Your task to perform on an android device: Go to internet settings Image 0: 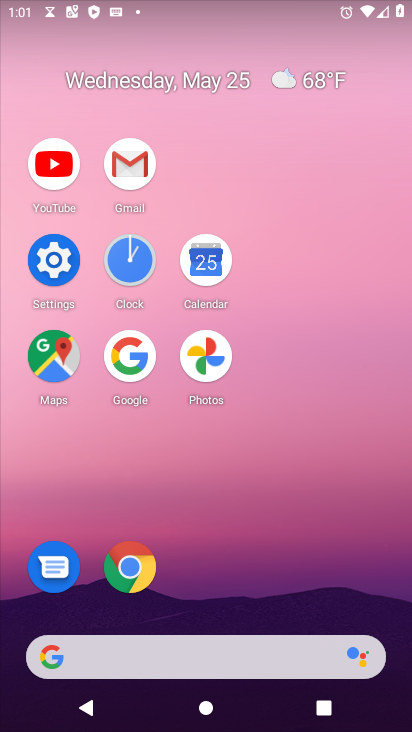
Step 0: click (41, 251)
Your task to perform on an android device: Go to internet settings Image 1: 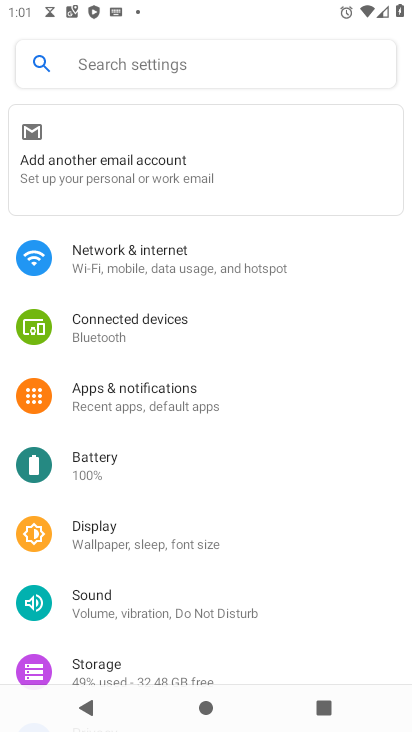
Step 1: click (187, 253)
Your task to perform on an android device: Go to internet settings Image 2: 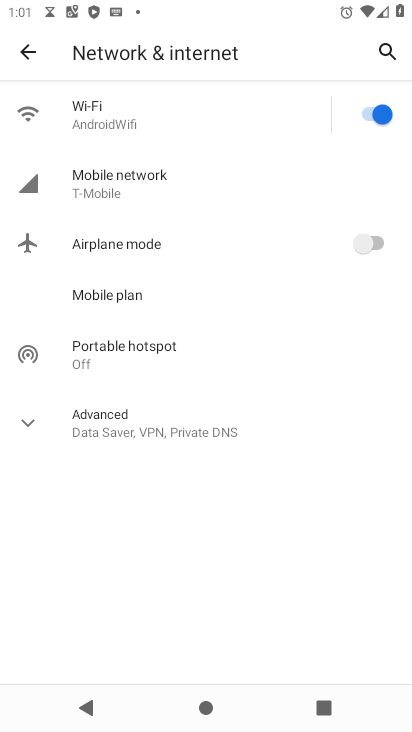
Step 2: task complete